Your task to perform on an android device: Go to eBay Image 0: 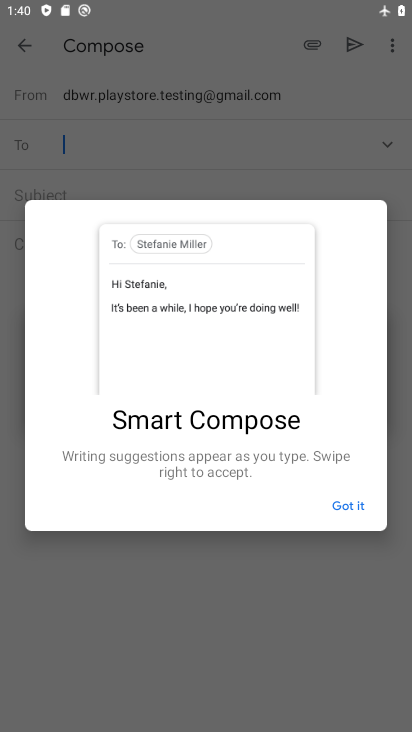
Step 0: press home button
Your task to perform on an android device: Go to eBay Image 1: 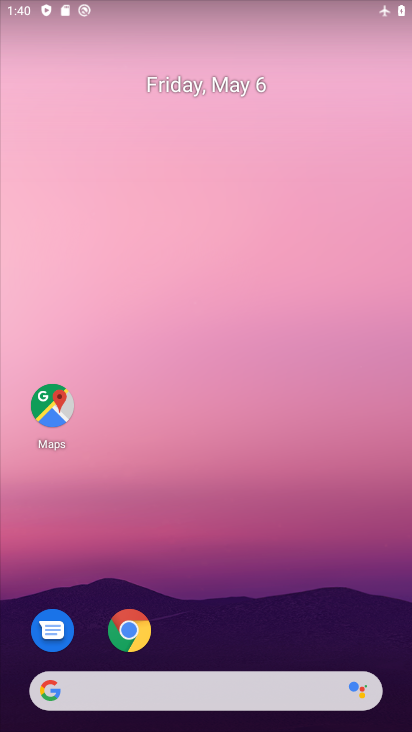
Step 1: click (136, 628)
Your task to perform on an android device: Go to eBay Image 2: 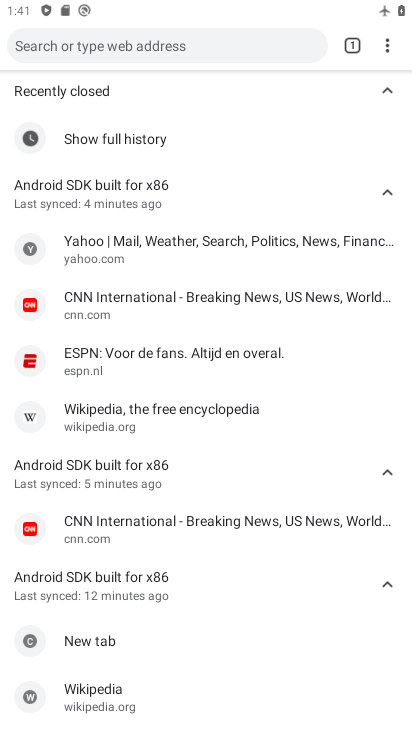
Step 2: click (144, 42)
Your task to perform on an android device: Go to eBay Image 3: 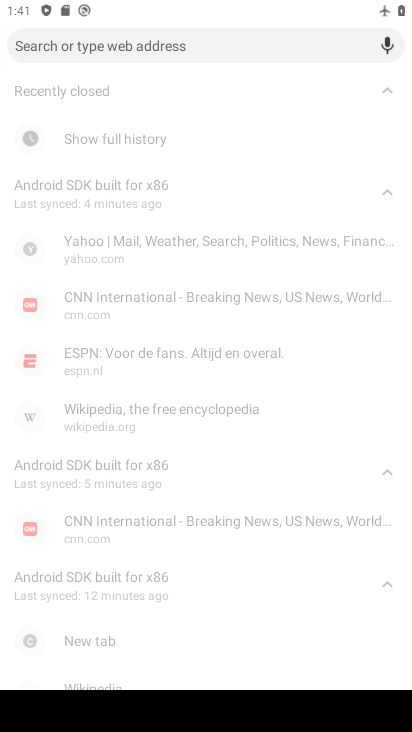
Step 3: type "ebay"
Your task to perform on an android device: Go to eBay Image 4: 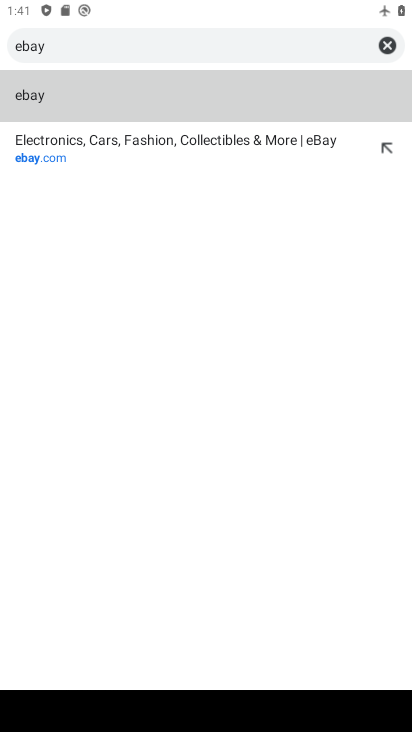
Step 4: click (105, 166)
Your task to perform on an android device: Go to eBay Image 5: 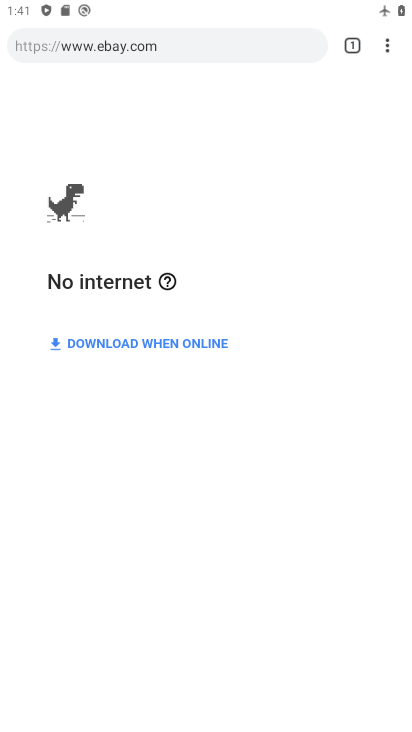
Step 5: task complete